Your task to perform on an android device: Open settings on Google Maps Image 0: 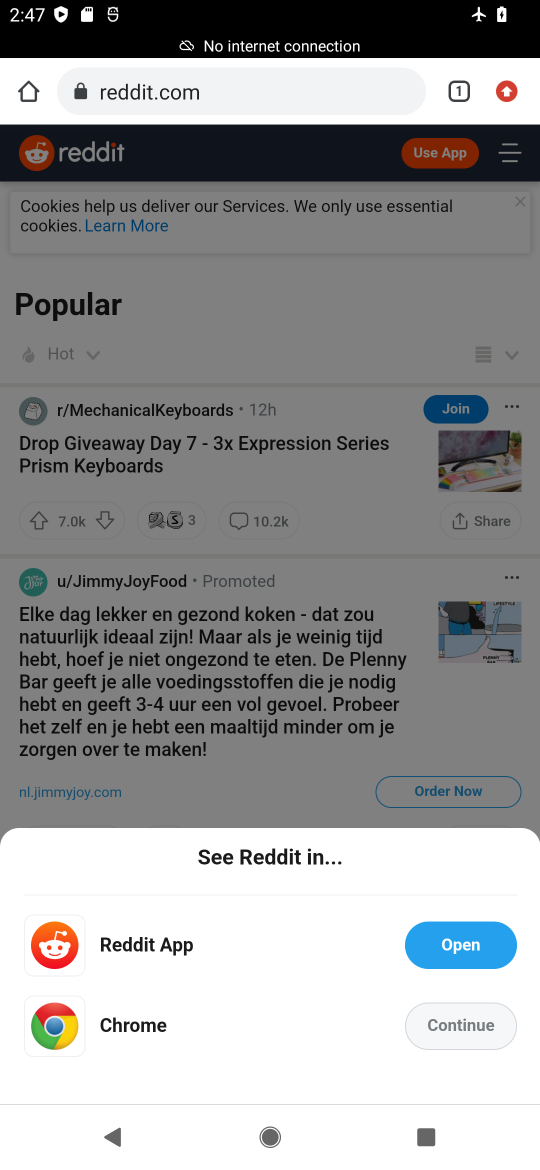
Step 0: press home button
Your task to perform on an android device: Open settings on Google Maps Image 1: 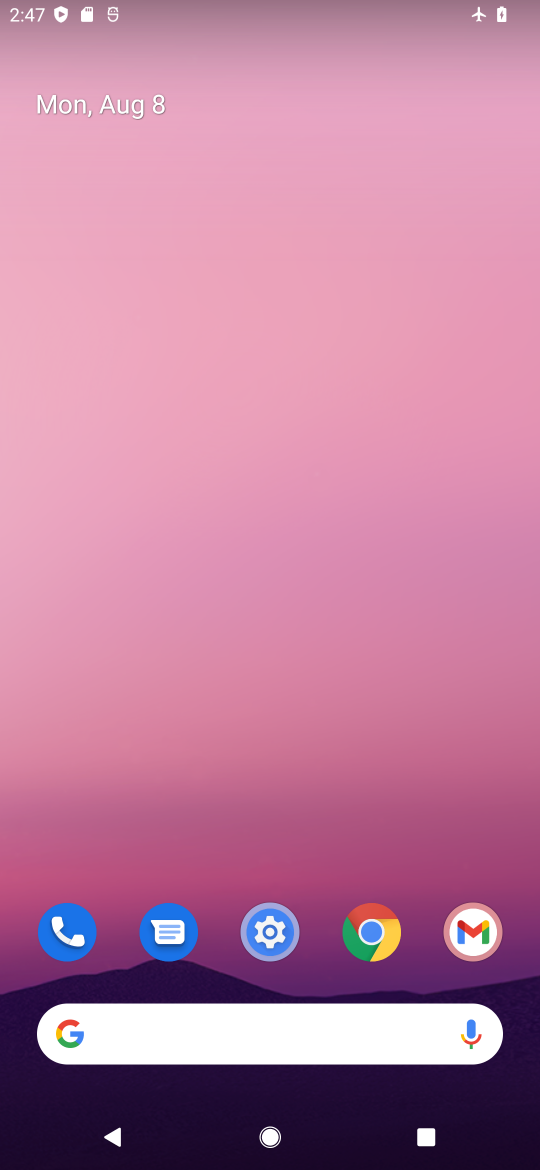
Step 1: drag from (312, 783) to (189, 6)
Your task to perform on an android device: Open settings on Google Maps Image 2: 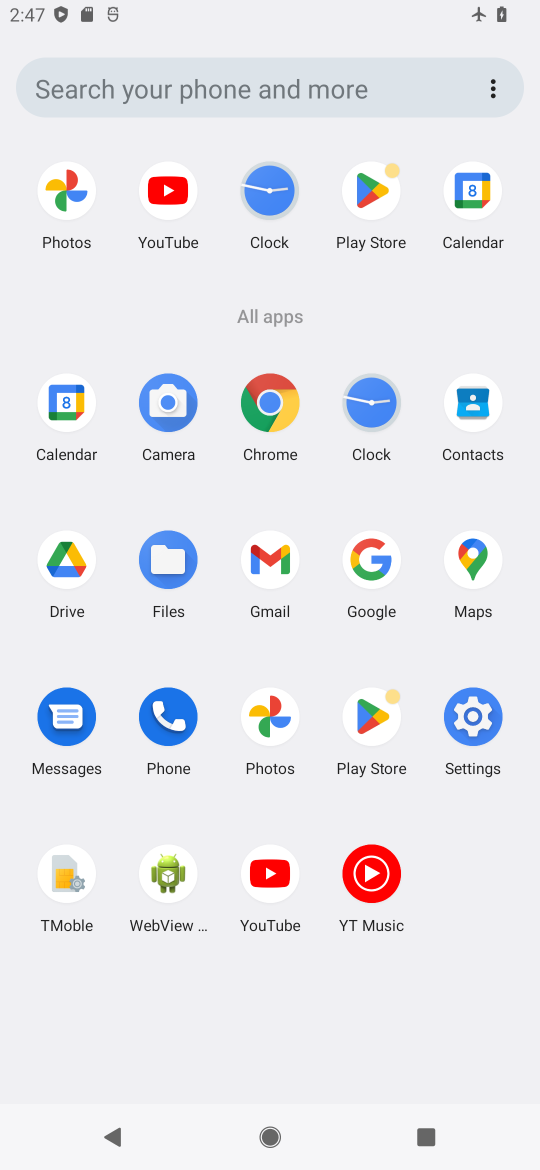
Step 2: click (483, 550)
Your task to perform on an android device: Open settings on Google Maps Image 3: 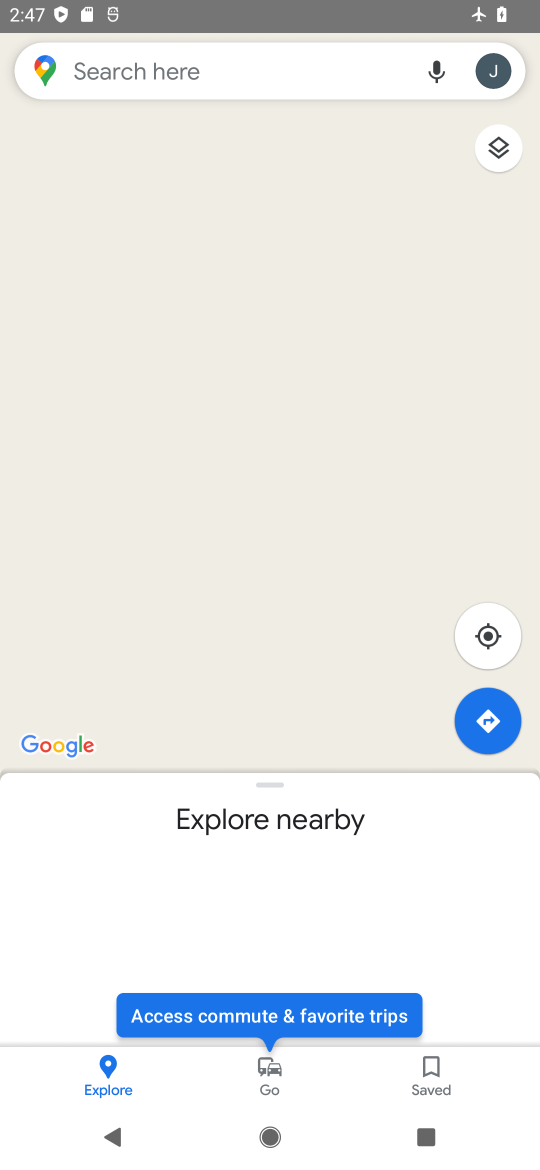
Step 3: click (498, 54)
Your task to perform on an android device: Open settings on Google Maps Image 4: 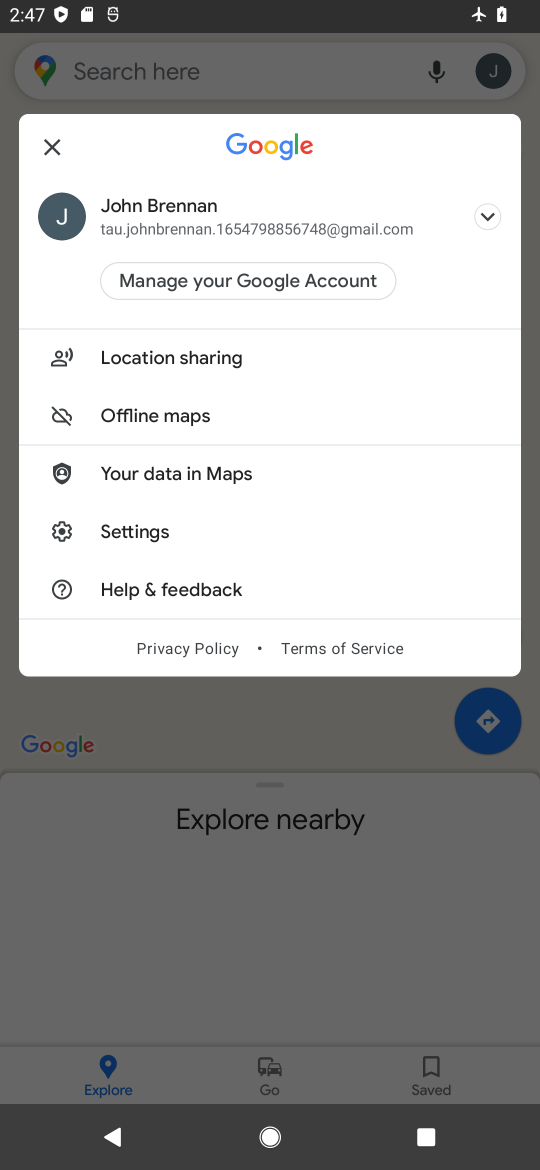
Step 4: click (165, 523)
Your task to perform on an android device: Open settings on Google Maps Image 5: 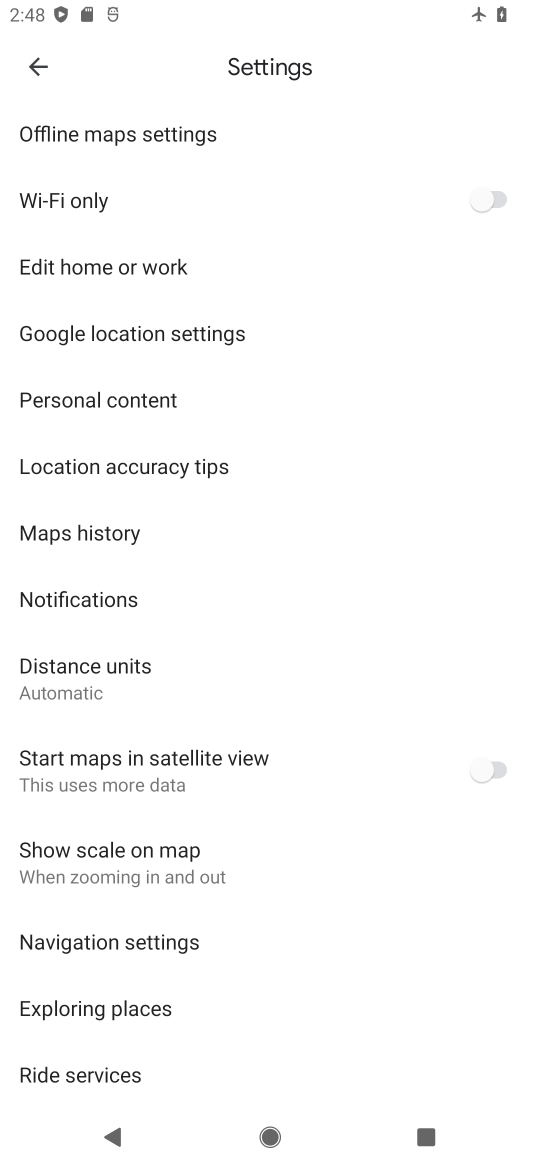
Step 5: task complete